Your task to perform on an android device: Go to Google Image 0: 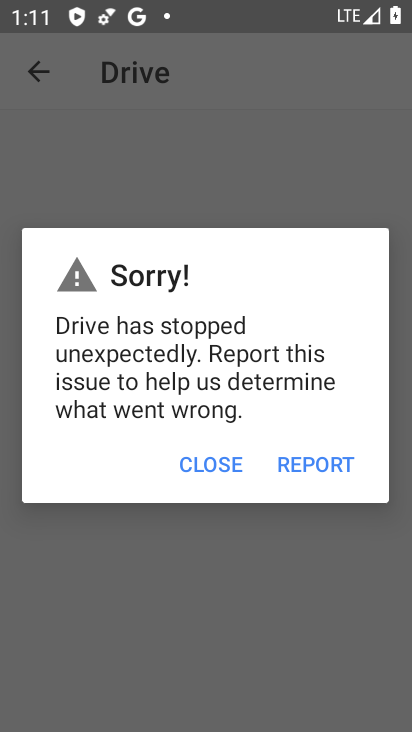
Step 0: press home button
Your task to perform on an android device: Go to Google Image 1: 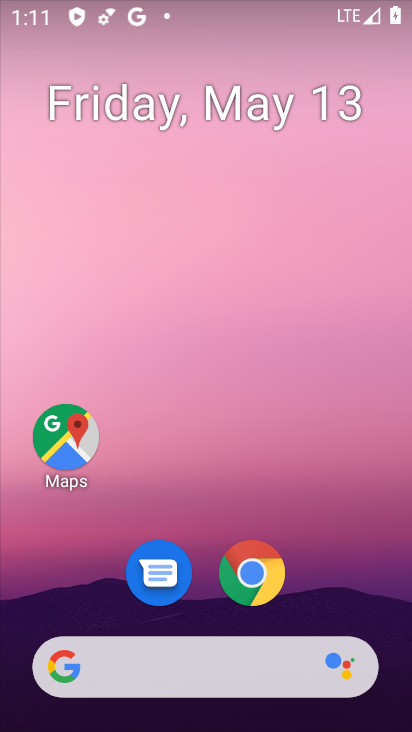
Step 1: drag from (221, 642) to (229, 318)
Your task to perform on an android device: Go to Google Image 2: 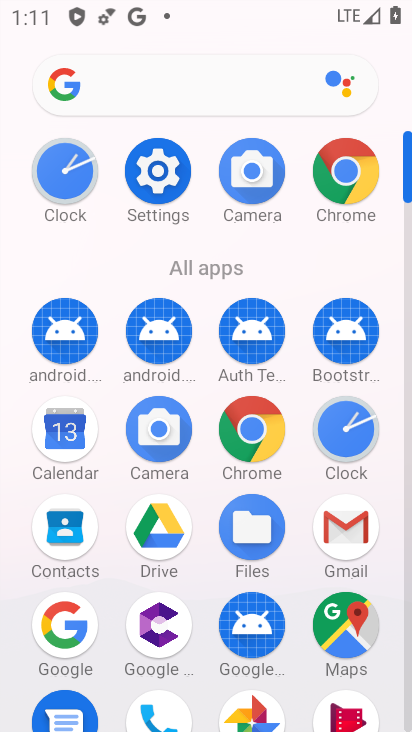
Step 2: click (46, 619)
Your task to perform on an android device: Go to Google Image 3: 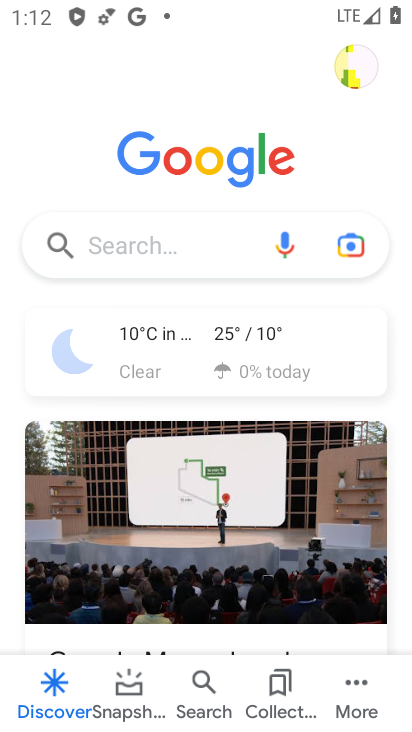
Step 3: task complete